Your task to perform on an android device: uninstall "WhatsApp Messenger" Image 0: 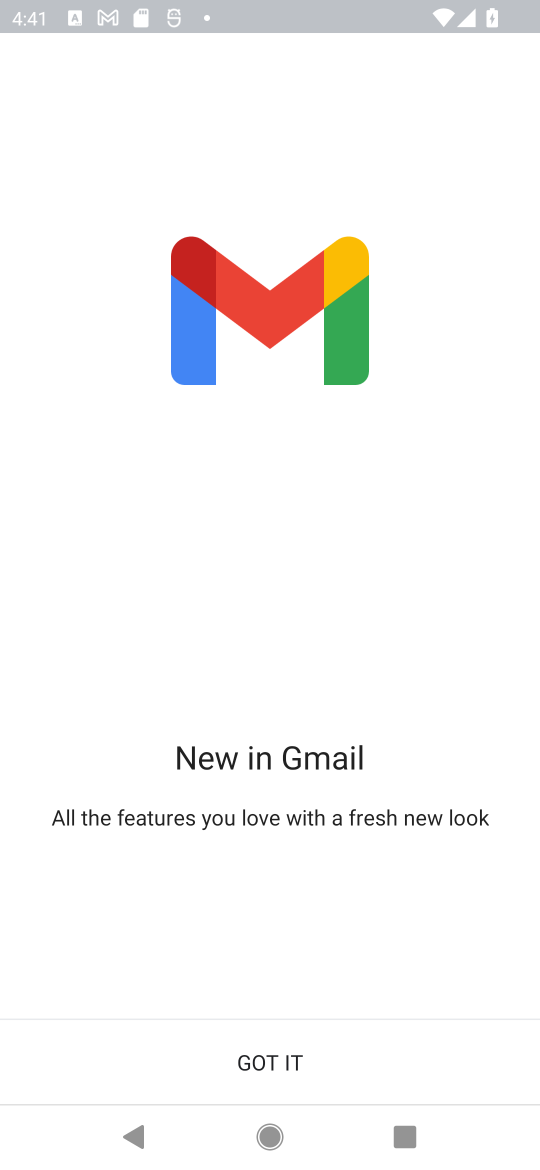
Step 0: press home button
Your task to perform on an android device: uninstall "WhatsApp Messenger" Image 1: 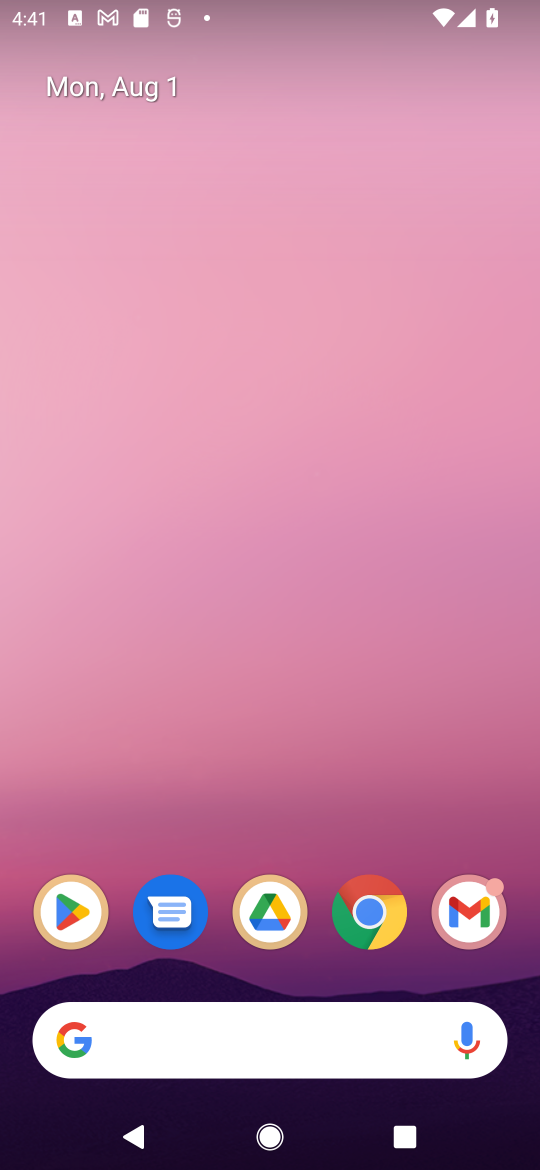
Step 1: click (56, 922)
Your task to perform on an android device: uninstall "WhatsApp Messenger" Image 2: 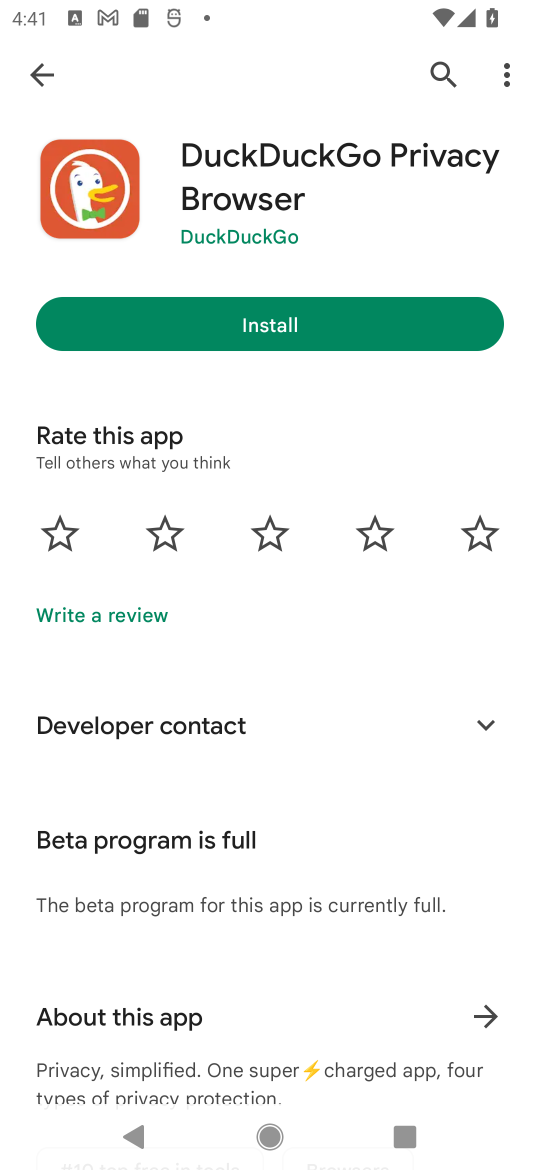
Step 2: click (438, 79)
Your task to perform on an android device: uninstall "WhatsApp Messenger" Image 3: 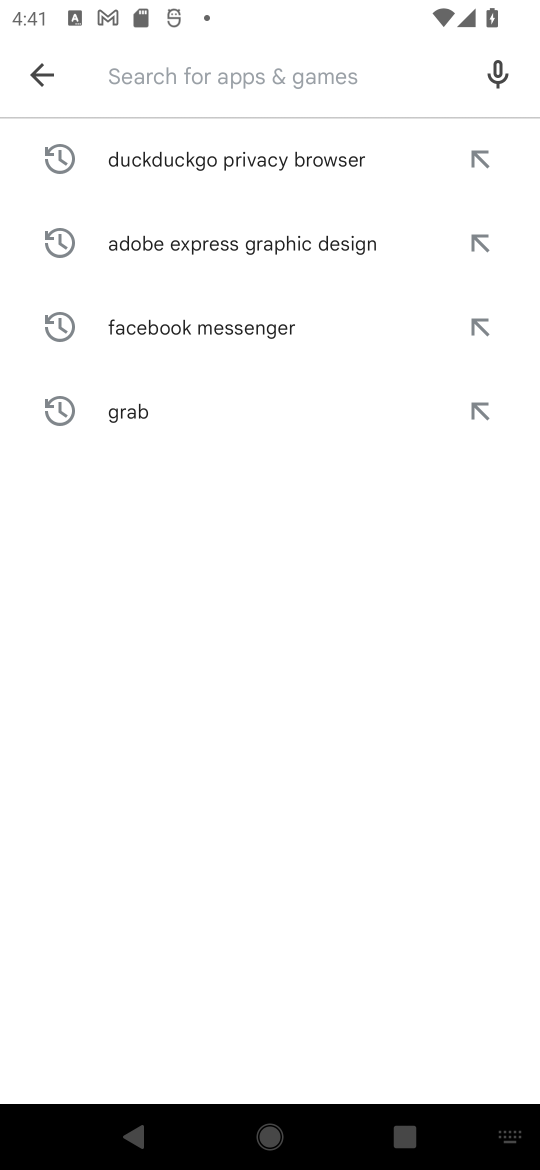
Step 3: type "WhatsApp Messenger"
Your task to perform on an android device: uninstall "WhatsApp Messenger" Image 4: 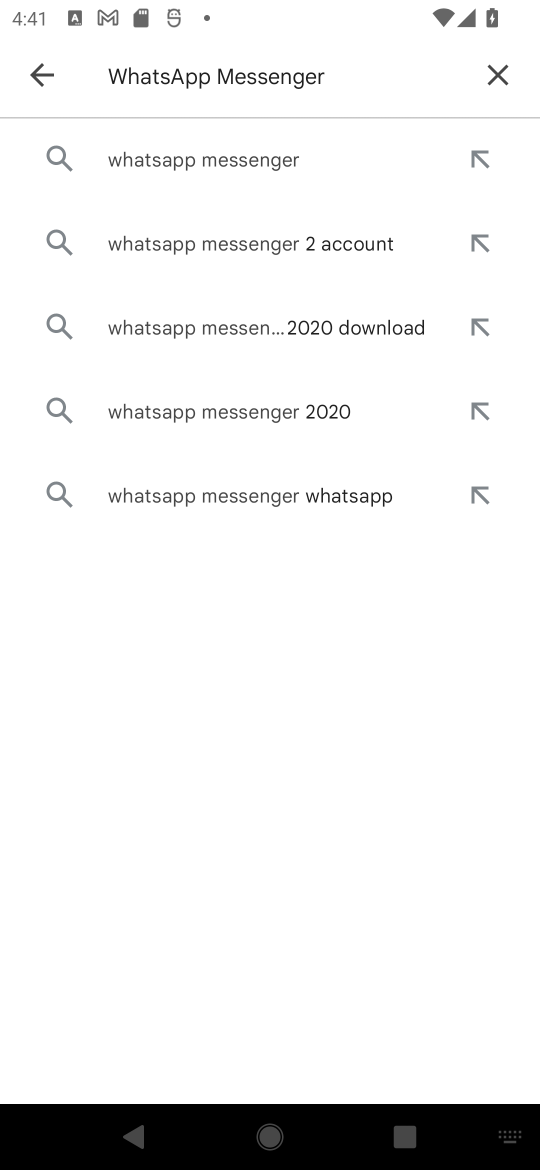
Step 4: click (136, 173)
Your task to perform on an android device: uninstall "WhatsApp Messenger" Image 5: 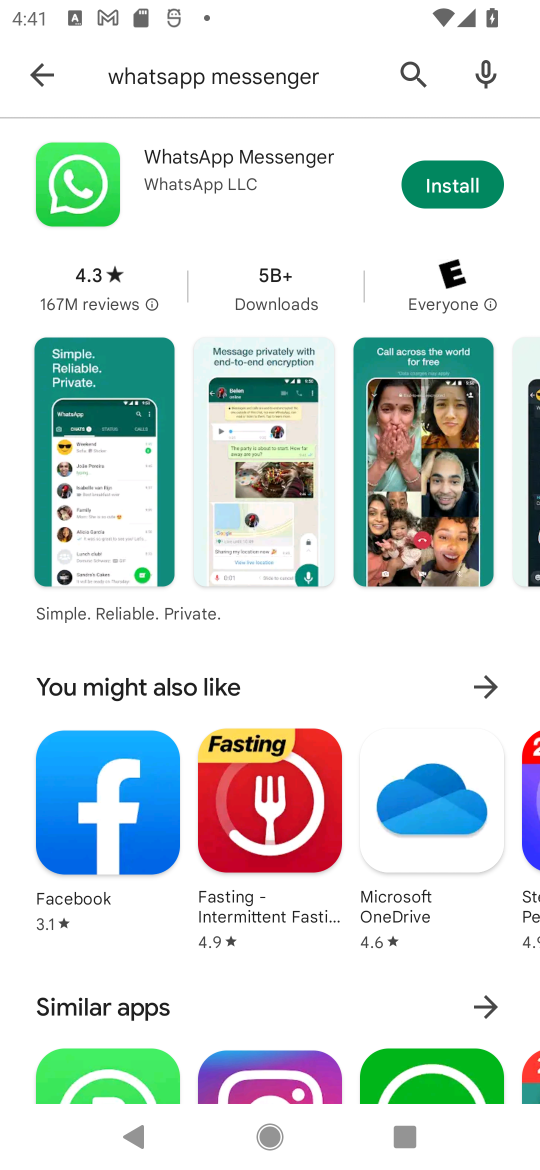
Step 5: task complete